Your task to perform on an android device: Go to Google Image 0: 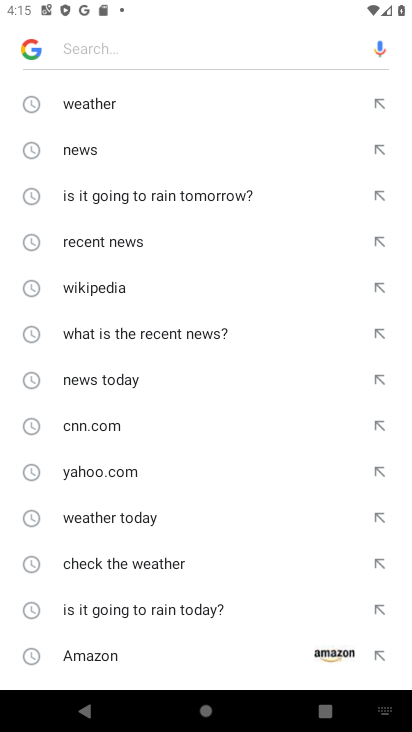
Step 0: press home button
Your task to perform on an android device: Go to Google Image 1: 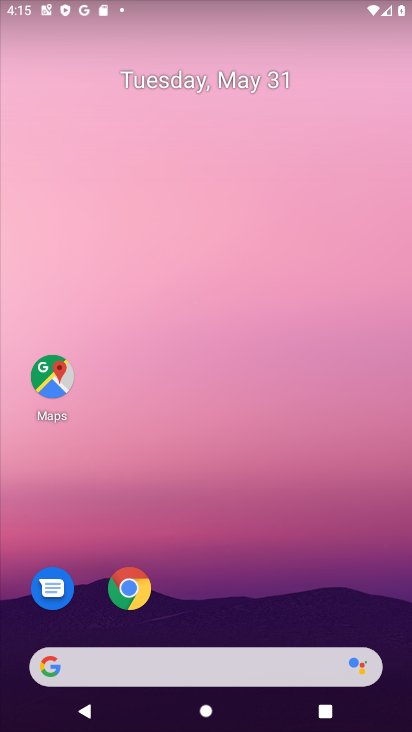
Step 1: click (158, 661)
Your task to perform on an android device: Go to Google Image 2: 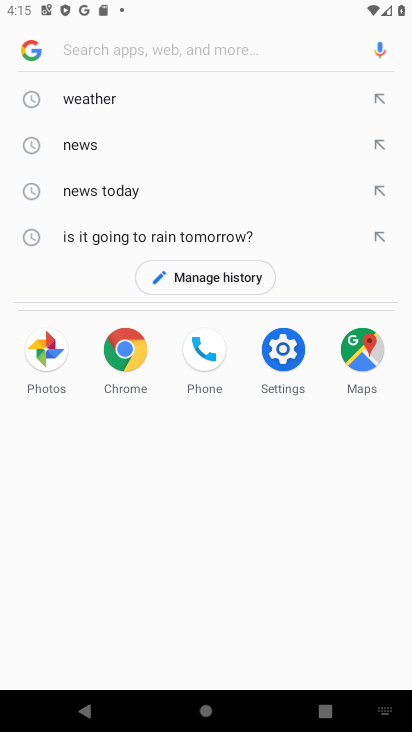
Step 2: task complete